Your task to perform on an android device: check out phone information Image 0: 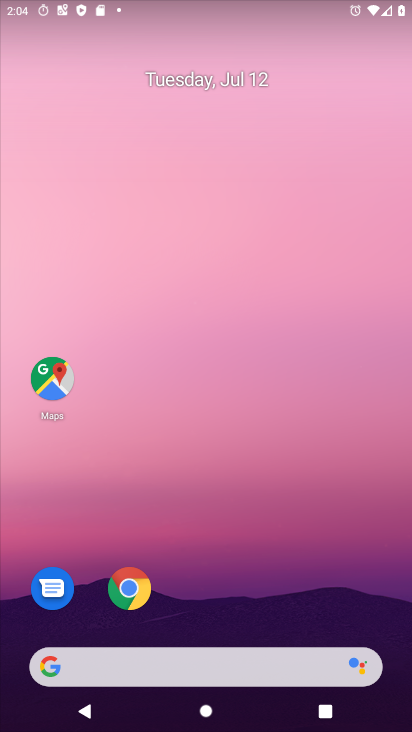
Step 0: drag from (178, 643) to (255, 163)
Your task to perform on an android device: check out phone information Image 1: 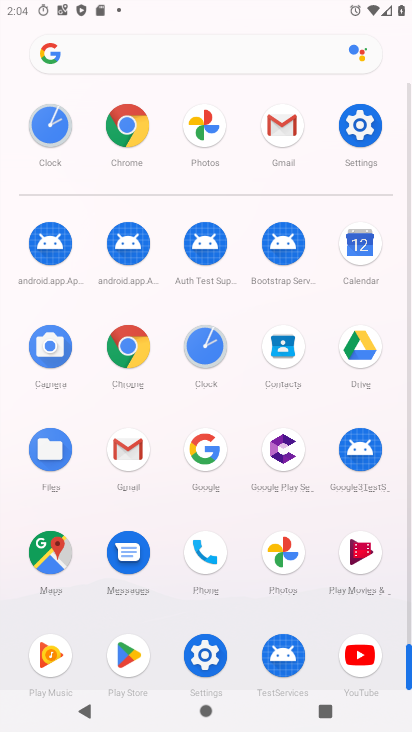
Step 1: click (210, 657)
Your task to perform on an android device: check out phone information Image 2: 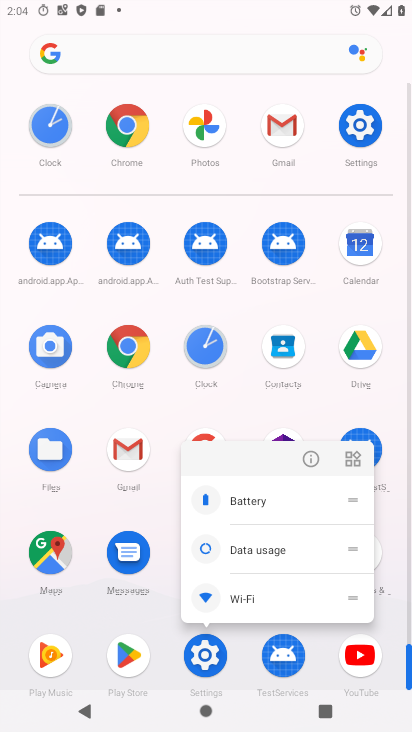
Step 2: click (310, 447)
Your task to perform on an android device: check out phone information Image 3: 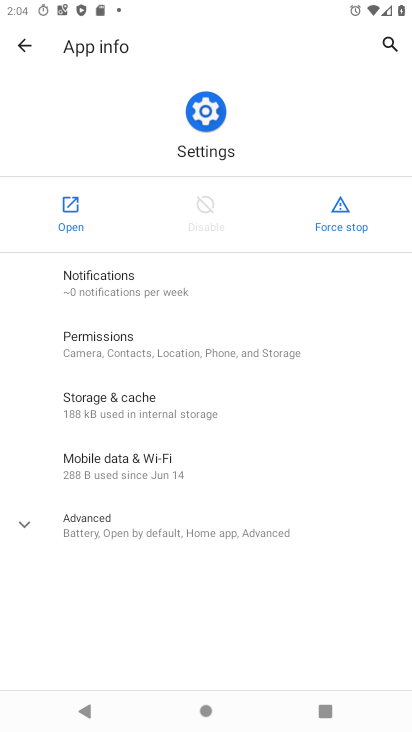
Step 3: click (67, 202)
Your task to perform on an android device: check out phone information Image 4: 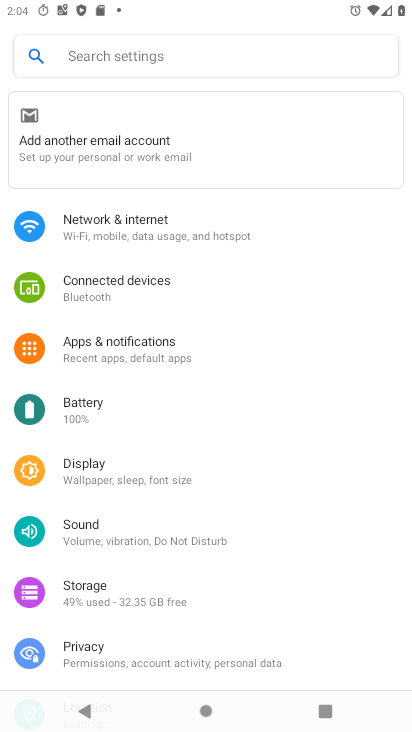
Step 4: drag from (199, 665) to (294, 150)
Your task to perform on an android device: check out phone information Image 5: 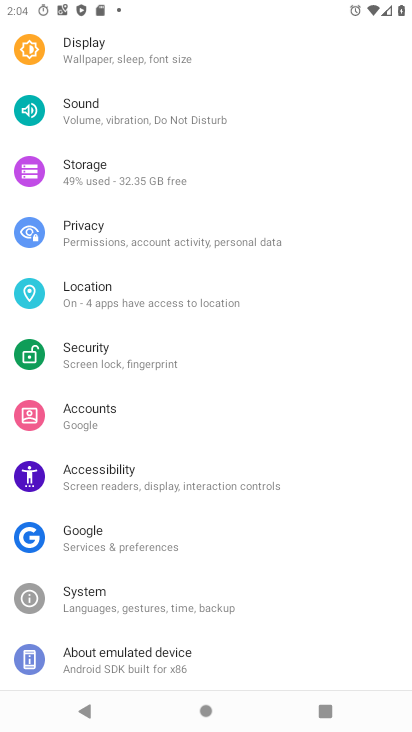
Step 5: drag from (115, 636) to (258, 223)
Your task to perform on an android device: check out phone information Image 6: 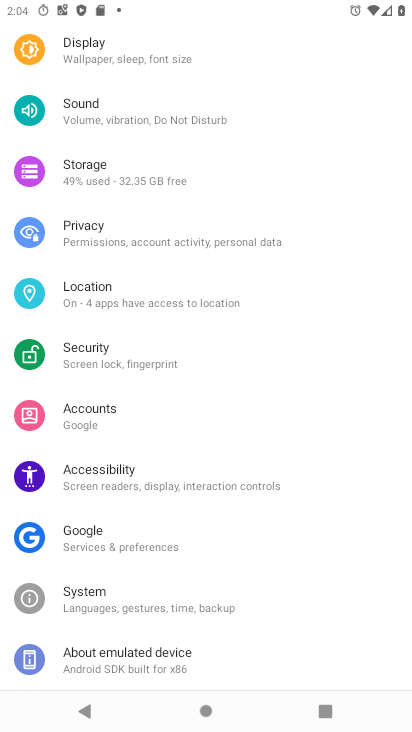
Step 6: click (142, 665)
Your task to perform on an android device: check out phone information Image 7: 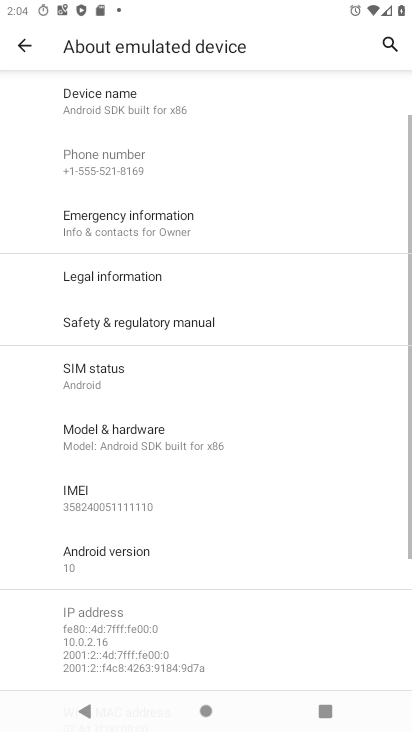
Step 7: task complete